Your task to perform on an android device: Go to eBay Image 0: 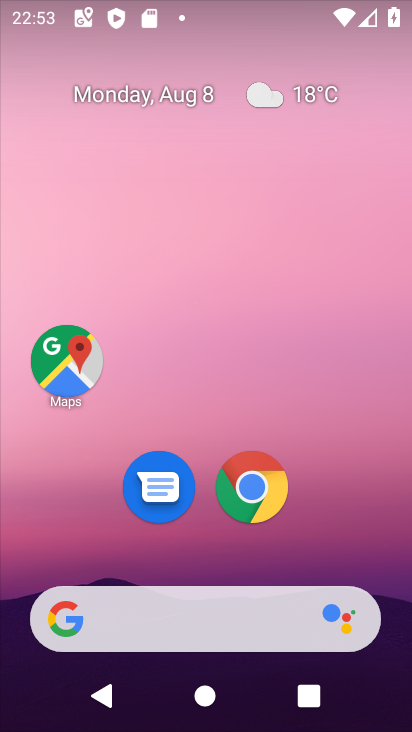
Step 0: drag from (217, 576) to (243, 93)
Your task to perform on an android device: Go to eBay Image 1: 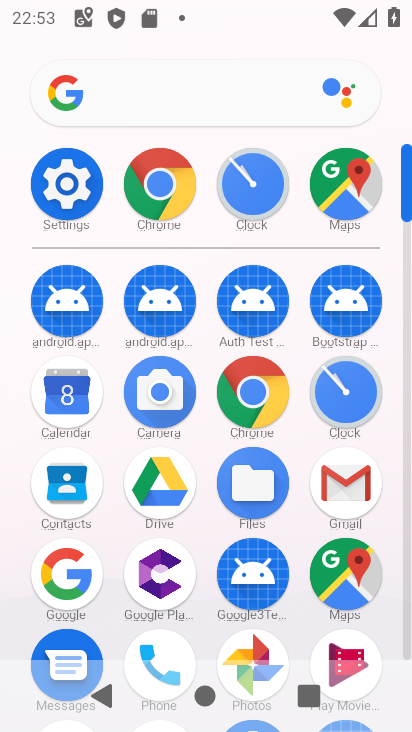
Step 1: click (246, 387)
Your task to perform on an android device: Go to eBay Image 2: 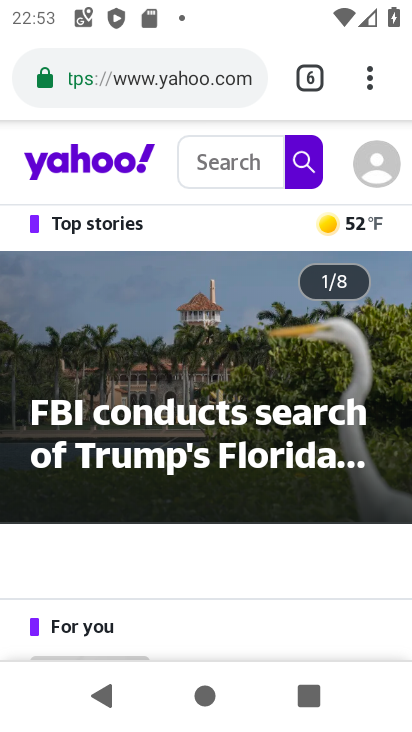
Step 2: click (368, 87)
Your task to perform on an android device: Go to eBay Image 3: 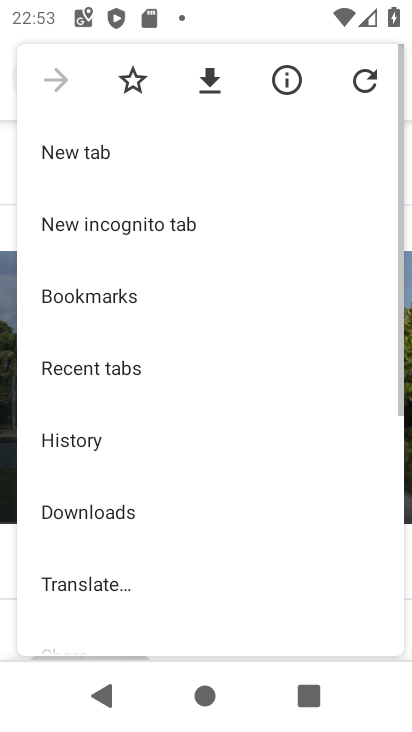
Step 3: click (48, 150)
Your task to perform on an android device: Go to eBay Image 4: 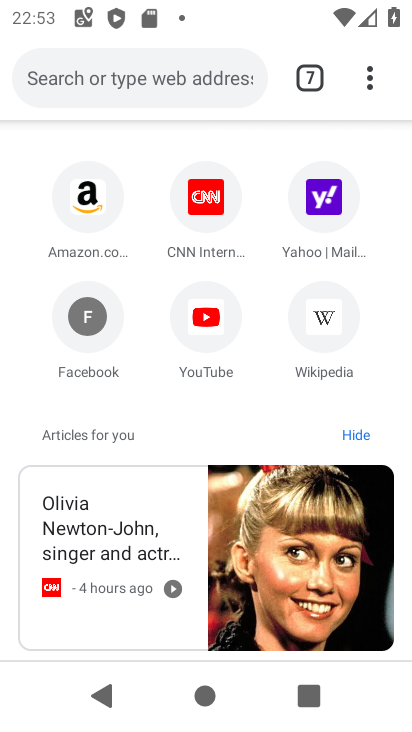
Step 4: click (173, 81)
Your task to perform on an android device: Go to eBay Image 5: 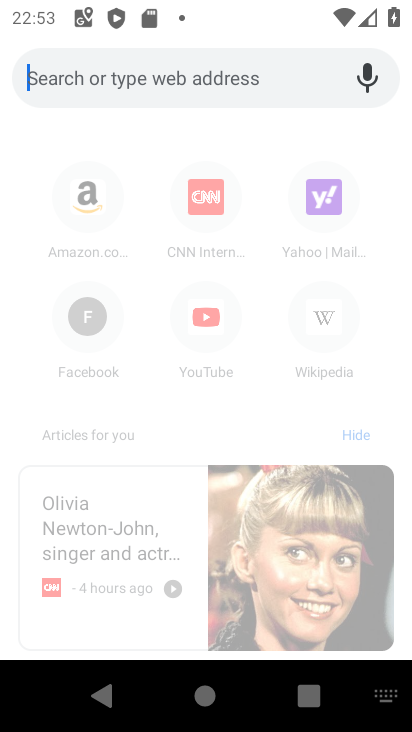
Step 5: type "eBay"
Your task to perform on an android device: Go to eBay Image 6: 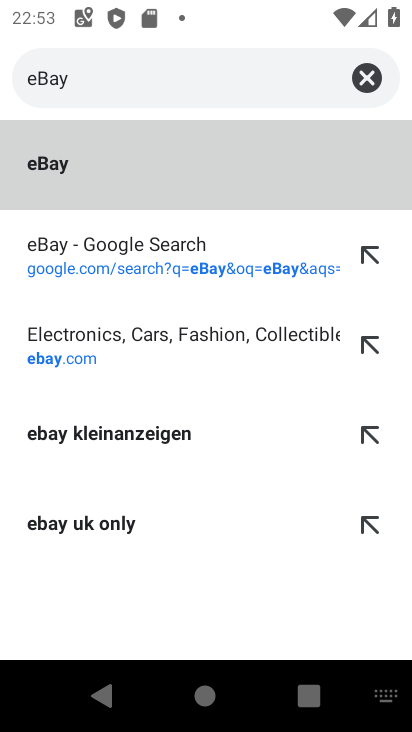
Step 6: click (35, 168)
Your task to perform on an android device: Go to eBay Image 7: 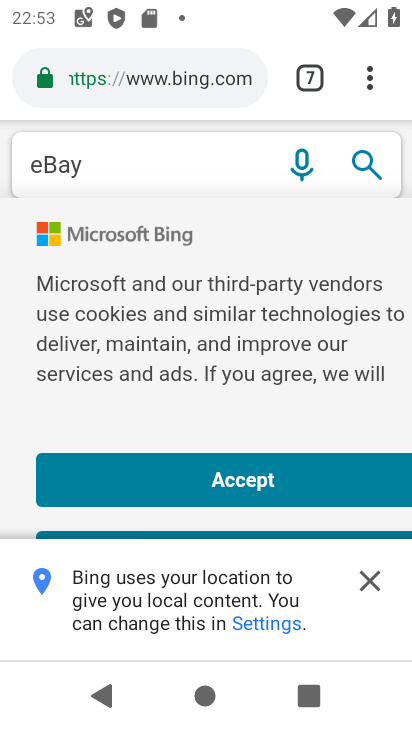
Step 7: task complete